Your task to perform on an android device: check data usage Image 0: 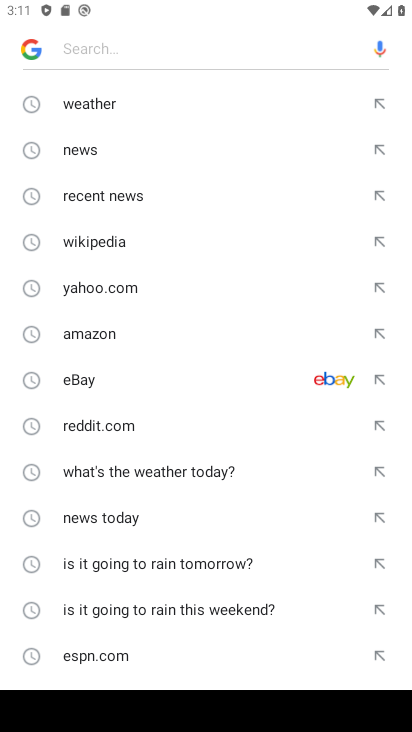
Step 0: press back button
Your task to perform on an android device: check data usage Image 1: 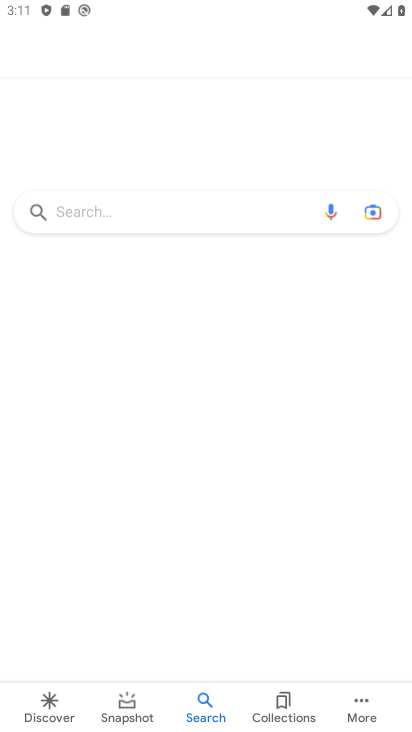
Step 1: press back button
Your task to perform on an android device: check data usage Image 2: 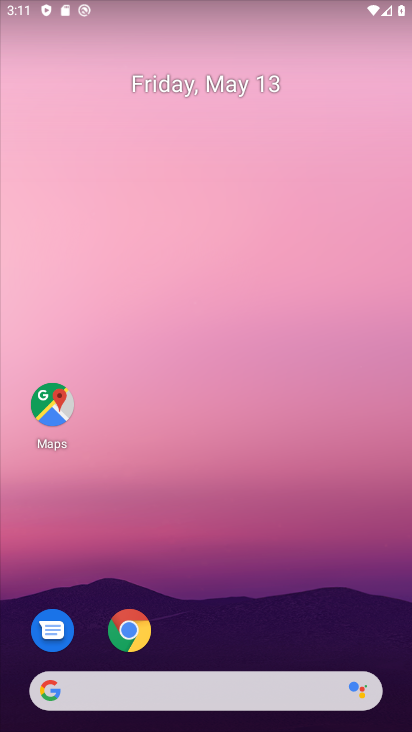
Step 2: drag from (211, 664) to (172, 16)
Your task to perform on an android device: check data usage Image 3: 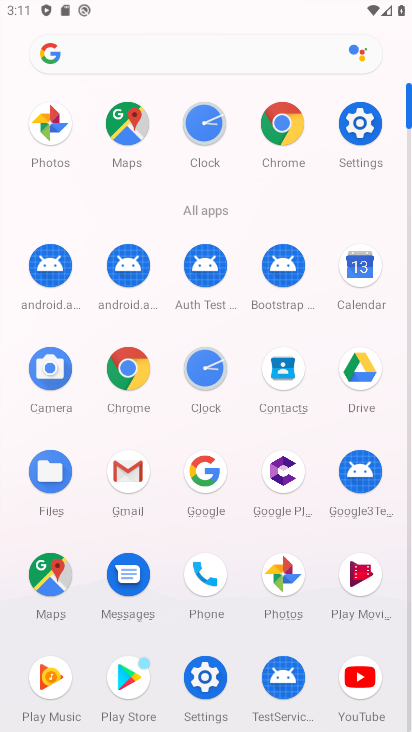
Step 3: click (370, 142)
Your task to perform on an android device: check data usage Image 4: 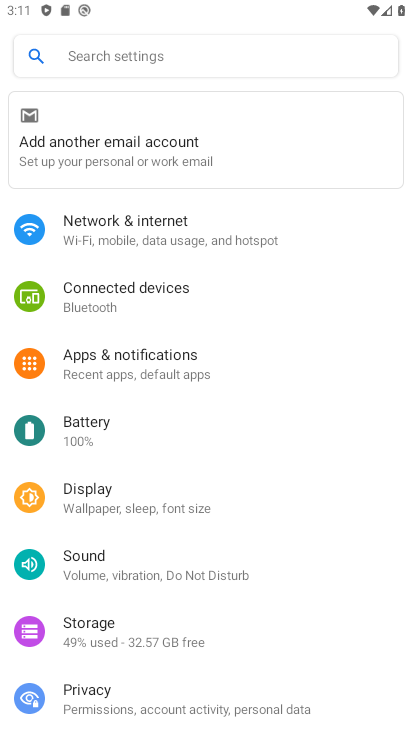
Step 4: click (101, 245)
Your task to perform on an android device: check data usage Image 5: 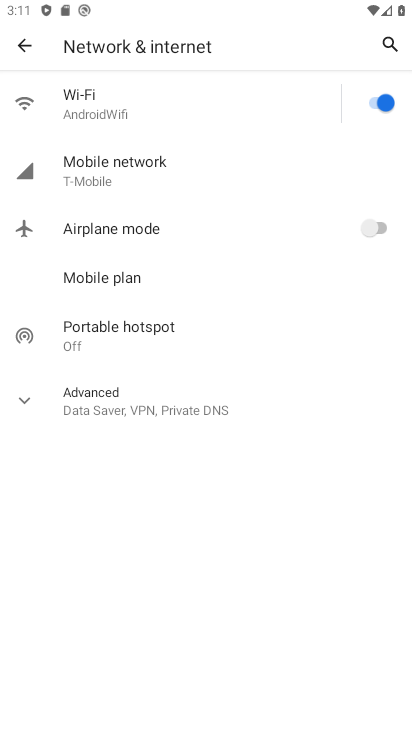
Step 5: click (120, 137)
Your task to perform on an android device: check data usage Image 6: 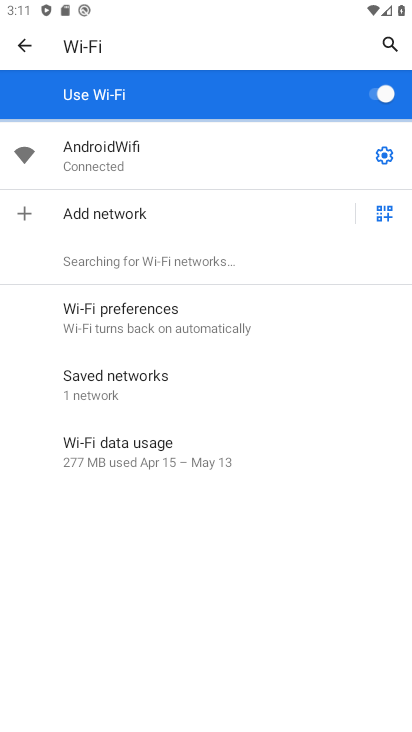
Step 6: click (21, 43)
Your task to perform on an android device: check data usage Image 7: 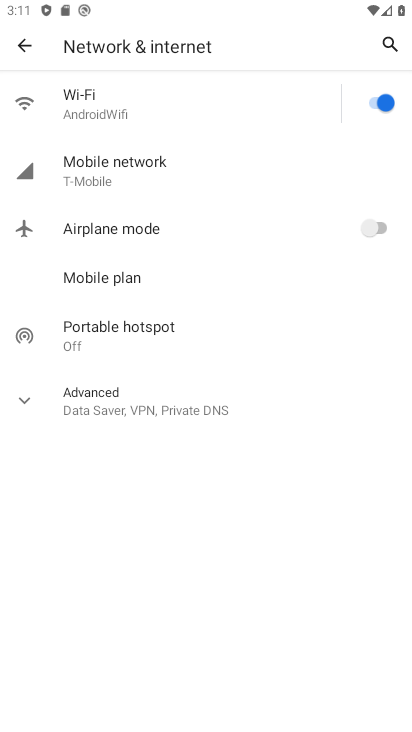
Step 7: click (112, 160)
Your task to perform on an android device: check data usage Image 8: 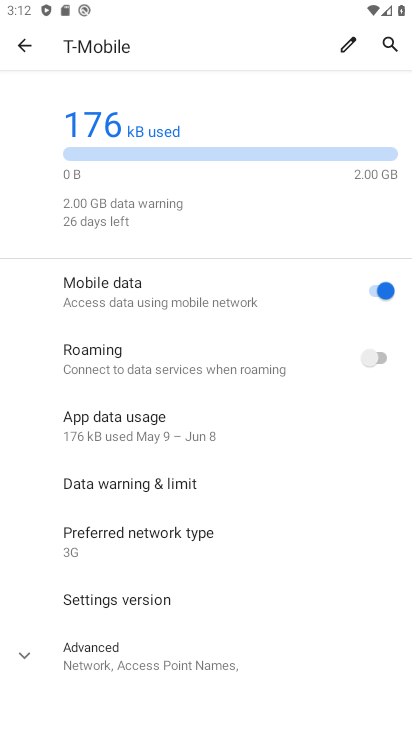
Step 8: task complete